Your task to perform on an android device: change the clock display to show seconds Image 0: 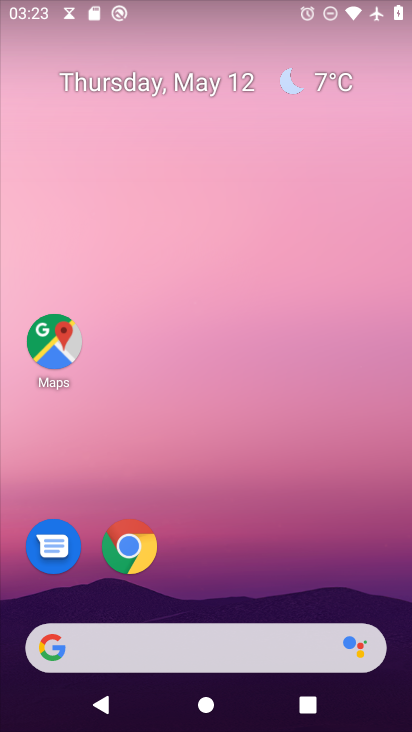
Step 0: press home button
Your task to perform on an android device: change the clock display to show seconds Image 1: 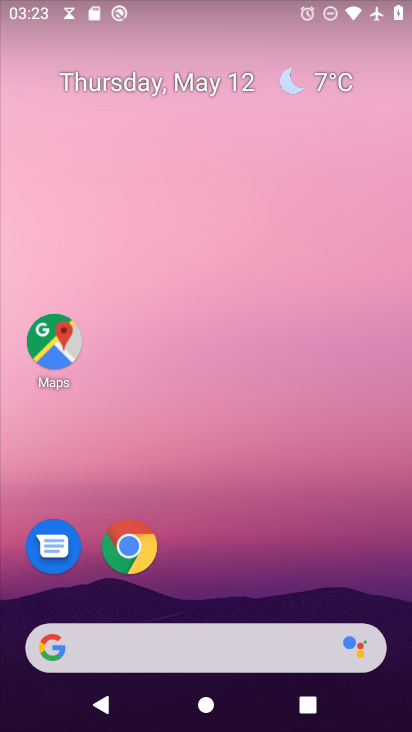
Step 1: drag from (144, 646) to (301, 227)
Your task to perform on an android device: change the clock display to show seconds Image 2: 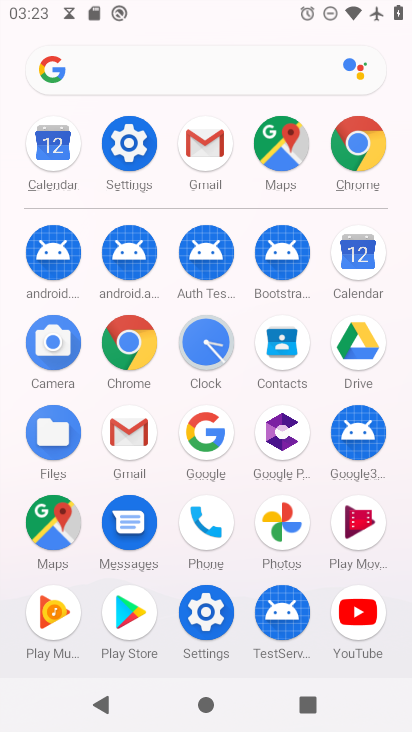
Step 2: click (215, 348)
Your task to perform on an android device: change the clock display to show seconds Image 3: 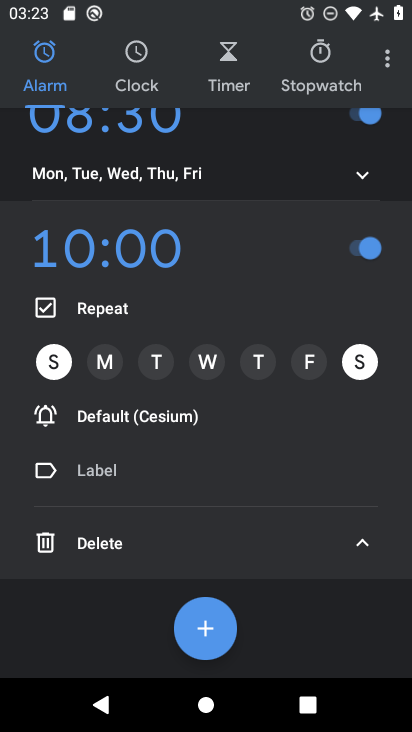
Step 3: click (388, 64)
Your task to perform on an android device: change the clock display to show seconds Image 4: 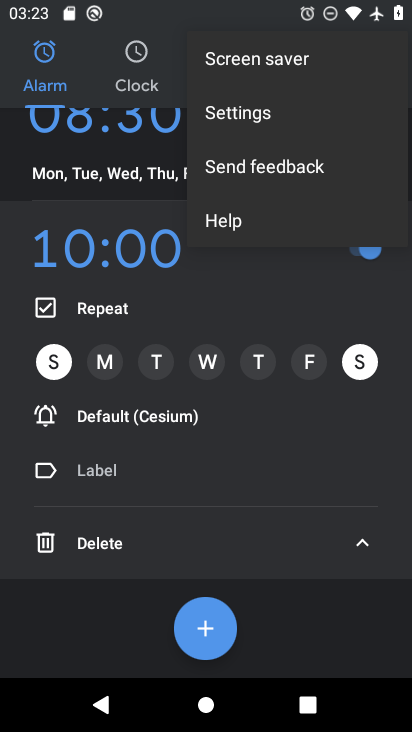
Step 4: click (247, 110)
Your task to perform on an android device: change the clock display to show seconds Image 5: 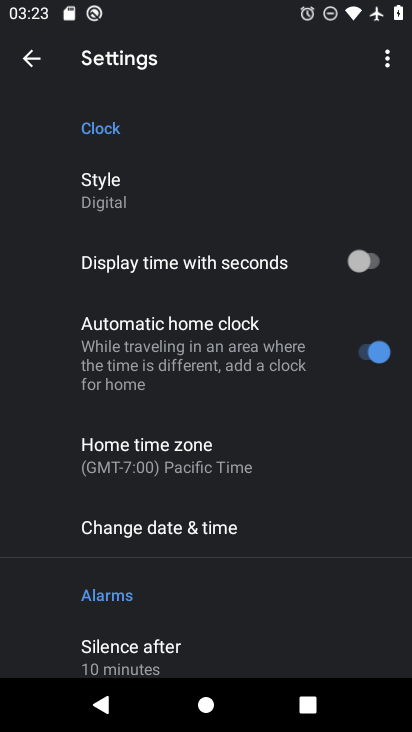
Step 5: click (374, 264)
Your task to perform on an android device: change the clock display to show seconds Image 6: 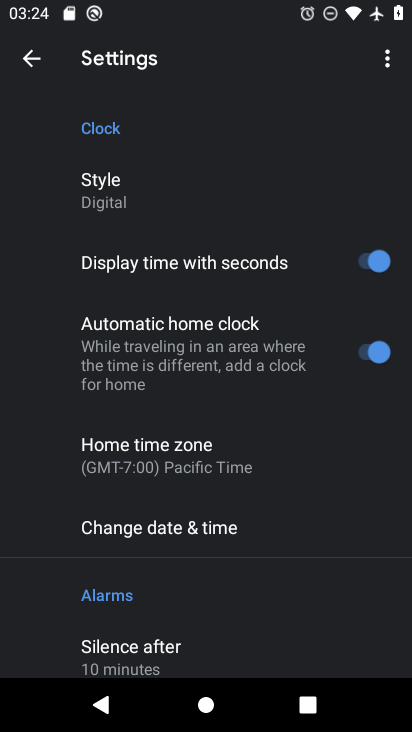
Step 6: task complete